Your task to perform on an android device: Show the shopping cart on amazon.com. Search for "macbook" on amazon.com, select the first entry, add it to the cart, then select checkout. Image 0: 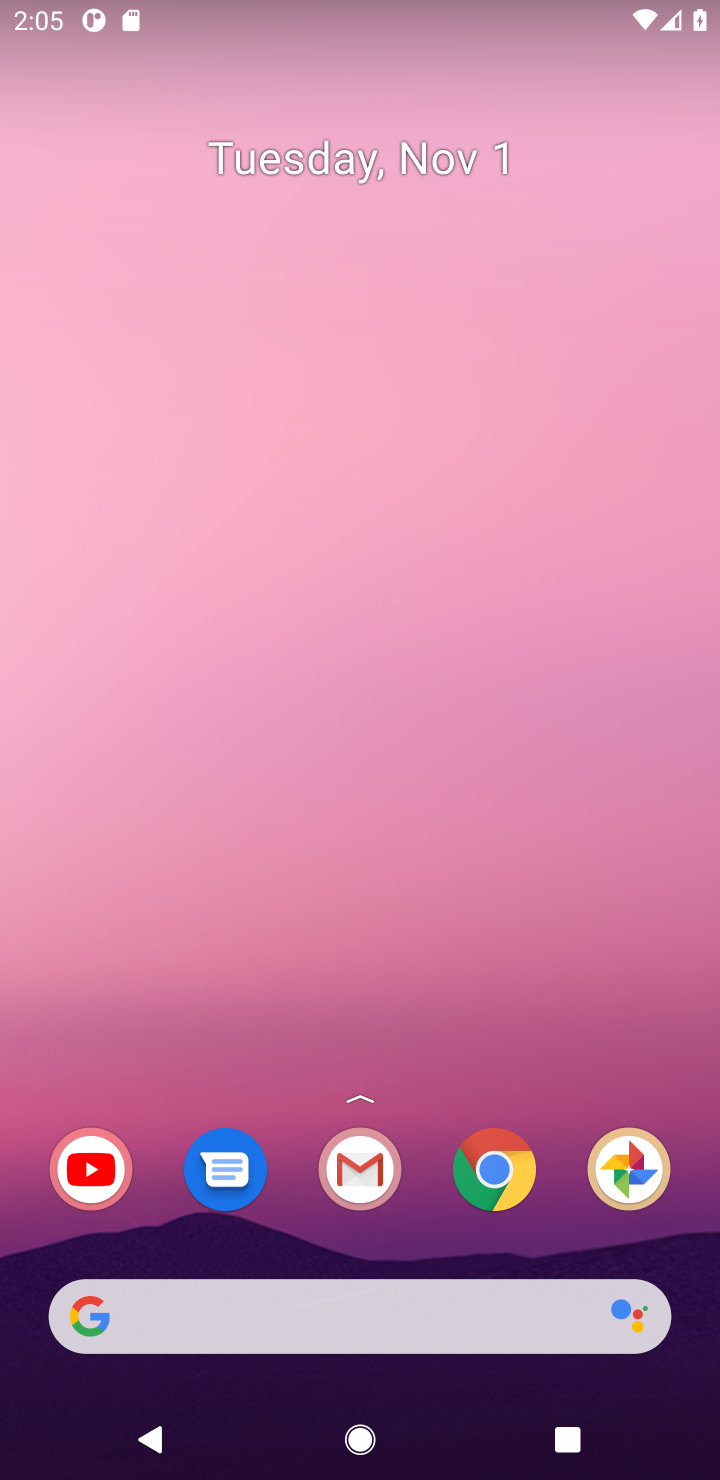
Step 0: drag from (419, 1081) to (337, 87)
Your task to perform on an android device: Show the shopping cart on amazon.com. Search for "macbook" on amazon.com, select the first entry, add it to the cart, then select checkout. Image 1: 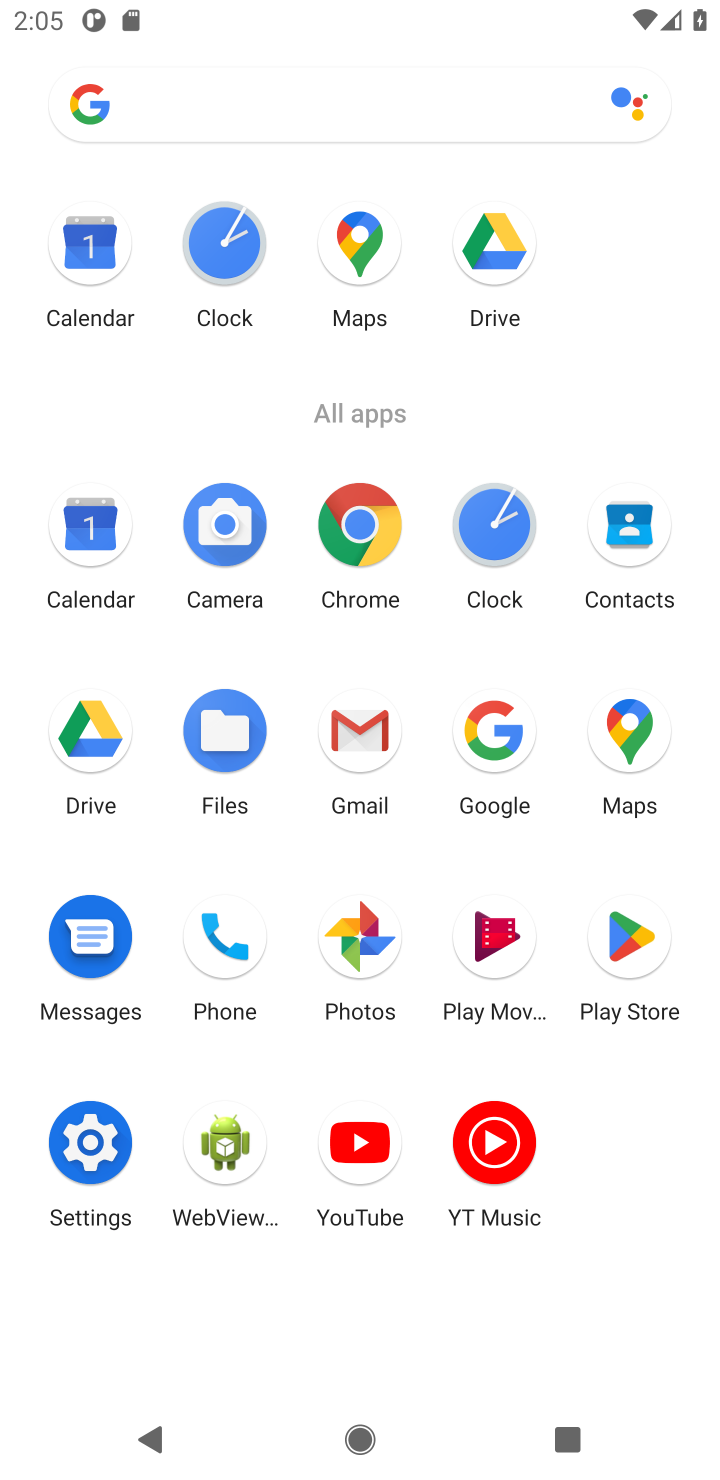
Step 1: click (353, 514)
Your task to perform on an android device: Show the shopping cart on amazon.com. Search for "macbook" on amazon.com, select the first entry, add it to the cart, then select checkout. Image 2: 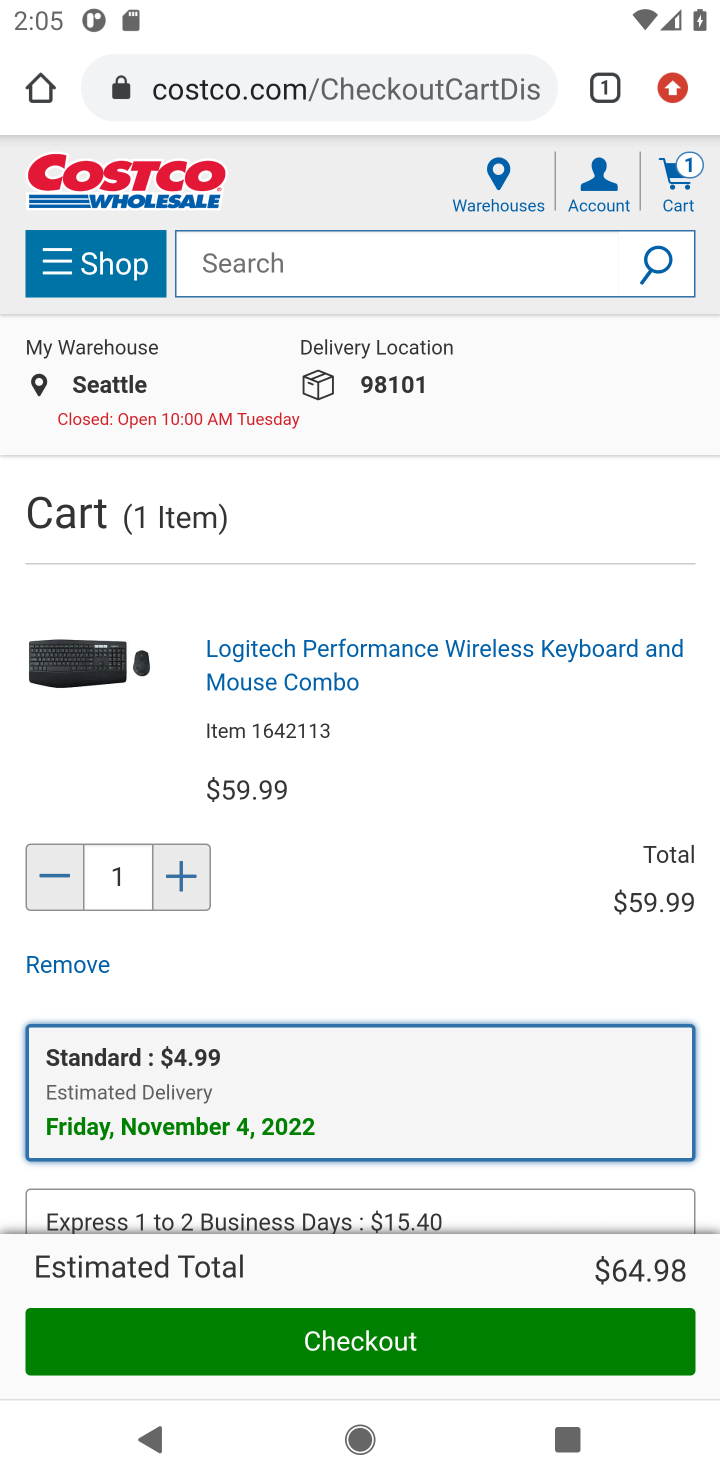
Step 2: click (211, 90)
Your task to perform on an android device: Show the shopping cart on amazon.com. Search for "macbook" on amazon.com, select the first entry, add it to the cart, then select checkout. Image 3: 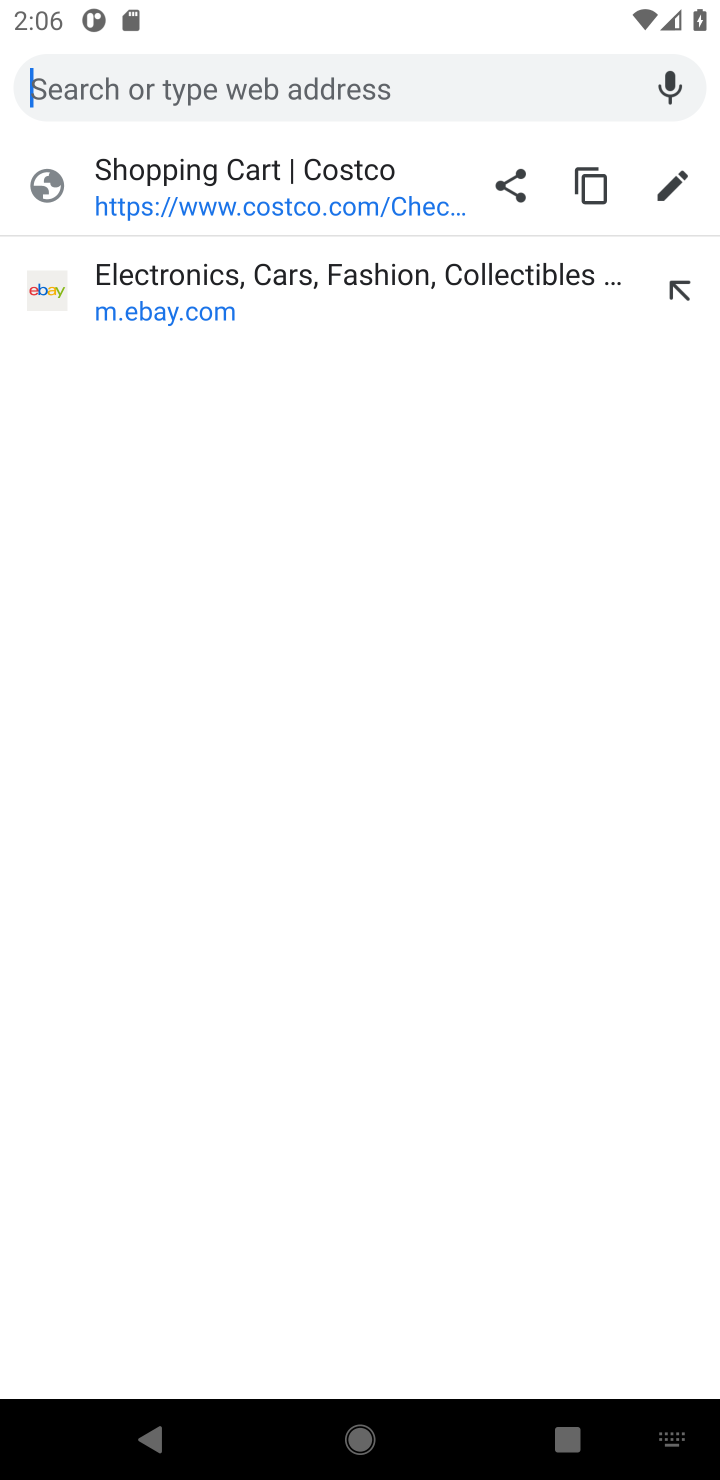
Step 3: type "amazon"
Your task to perform on an android device: Show the shopping cart on amazon.com. Search for "macbook" on amazon.com, select the first entry, add it to the cart, then select checkout. Image 4: 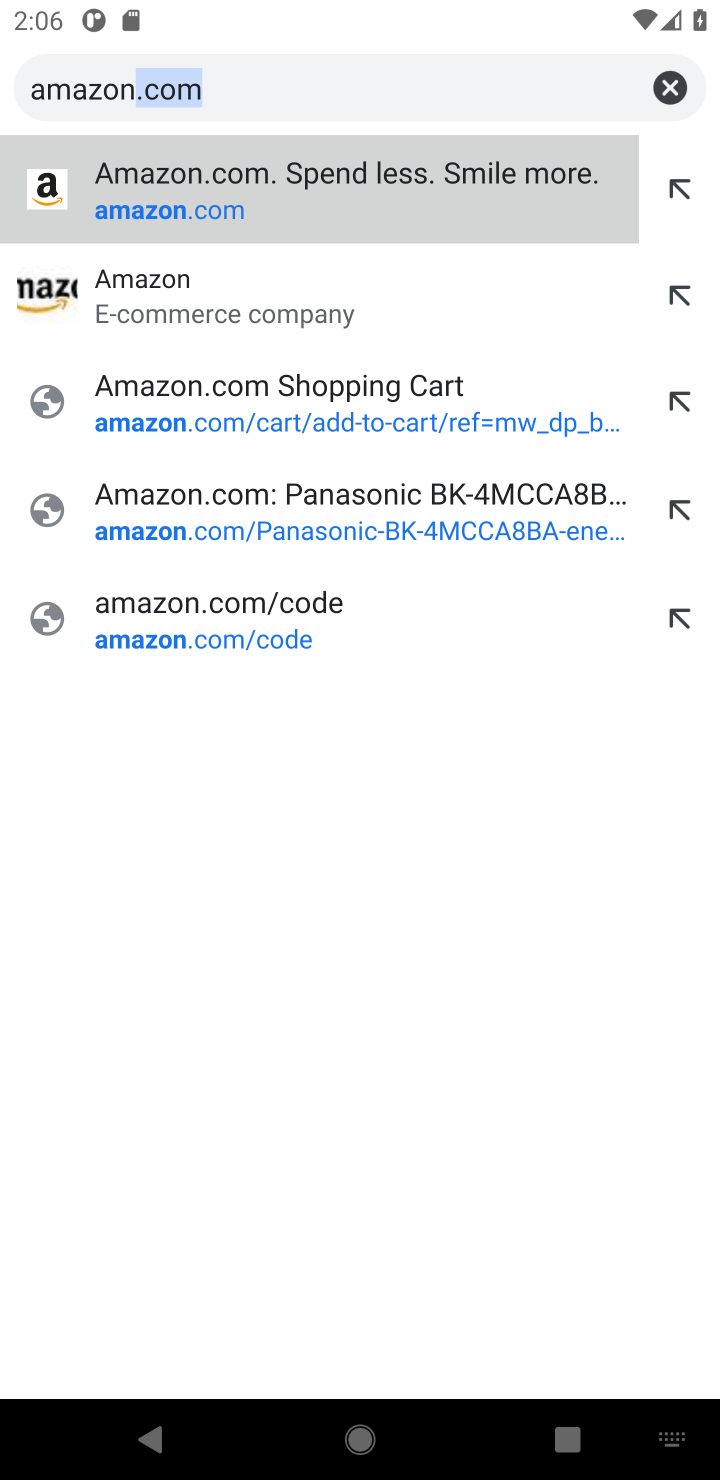
Step 4: click (116, 195)
Your task to perform on an android device: Show the shopping cart on amazon.com. Search for "macbook" on amazon.com, select the first entry, add it to the cart, then select checkout. Image 5: 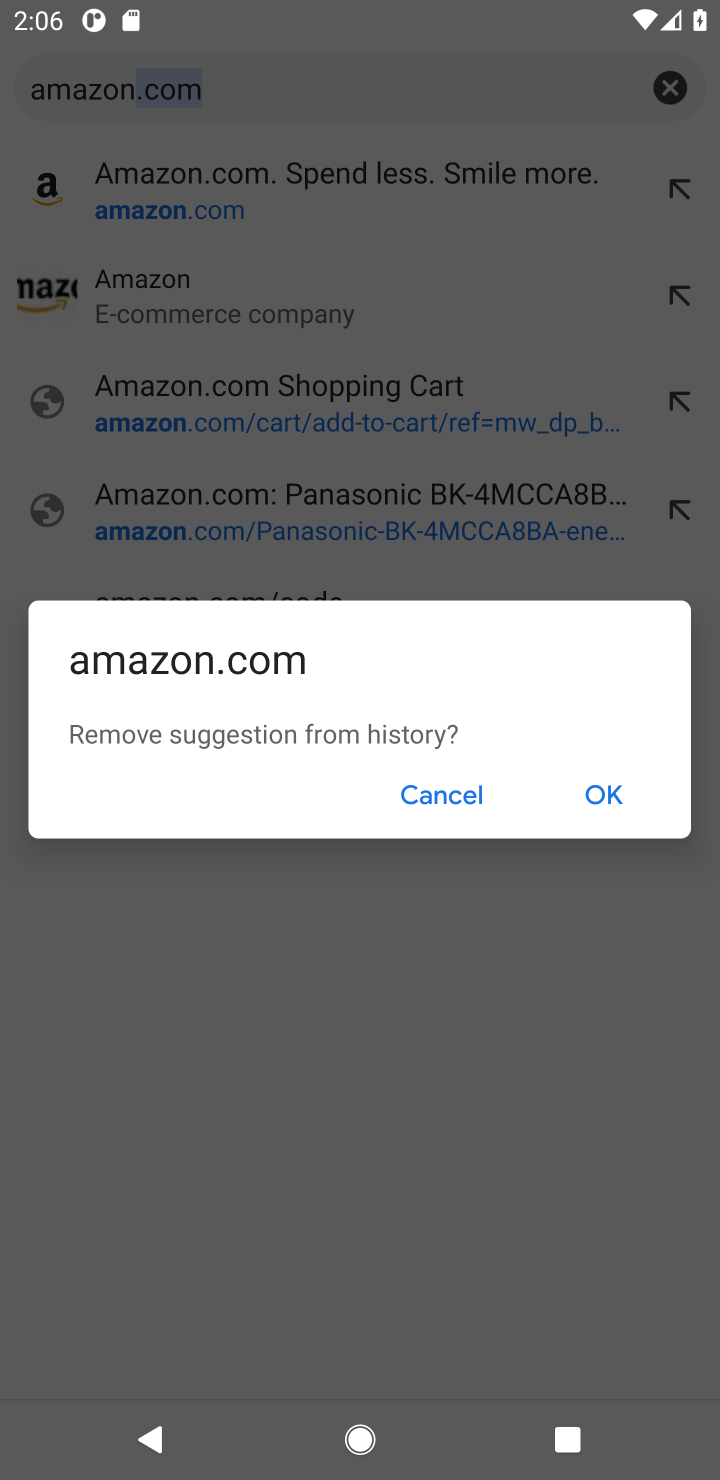
Step 5: click (448, 794)
Your task to perform on an android device: Show the shopping cart on amazon.com. Search for "macbook" on amazon.com, select the first entry, add it to the cart, then select checkout. Image 6: 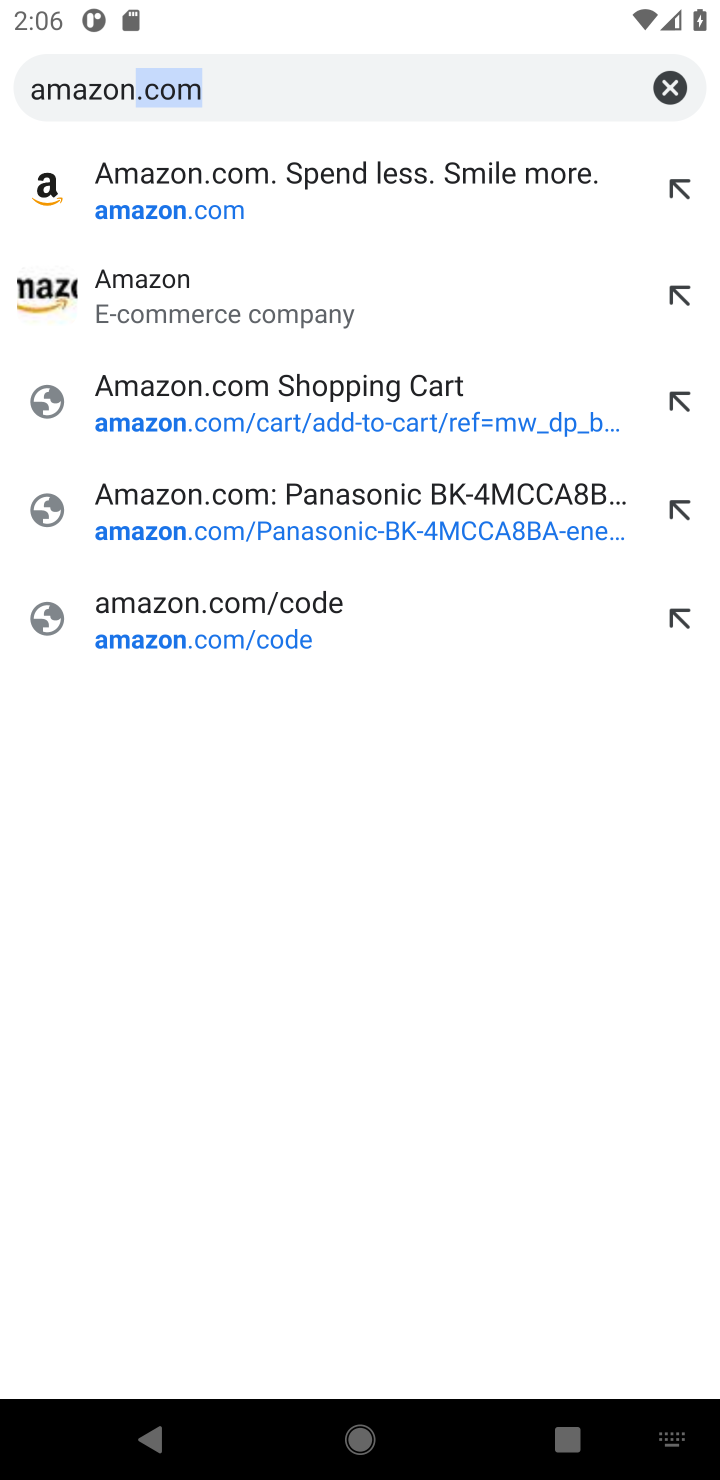
Step 6: click (181, 179)
Your task to perform on an android device: Show the shopping cart on amazon.com. Search for "macbook" on amazon.com, select the first entry, add it to the cart, then select checkout. Image 7: 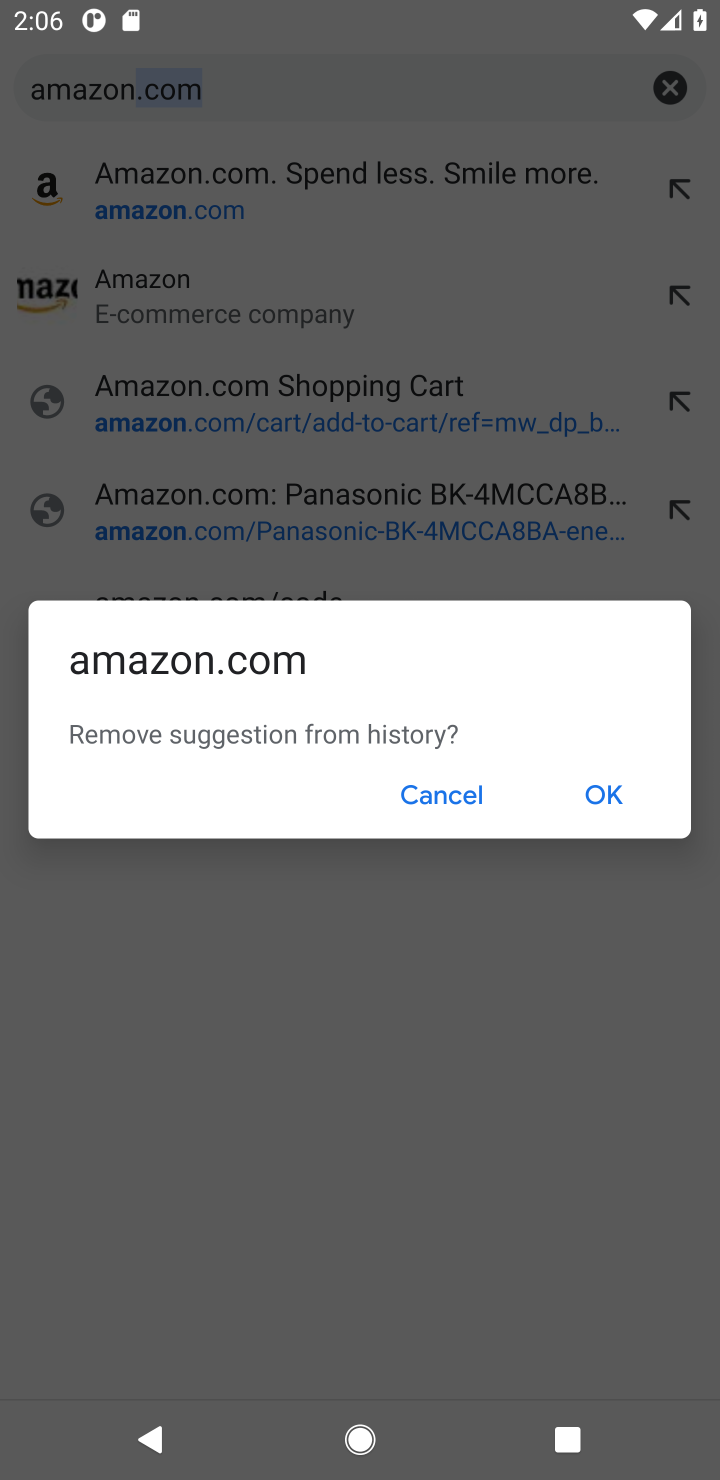
Step 7: click (430, 798)
Your task to perform on an android device: Show the shopping cart on amazon.com. Search for "macbook" on amazon.com, select the first entry, add it to the cart, then select checkout. Image 8: 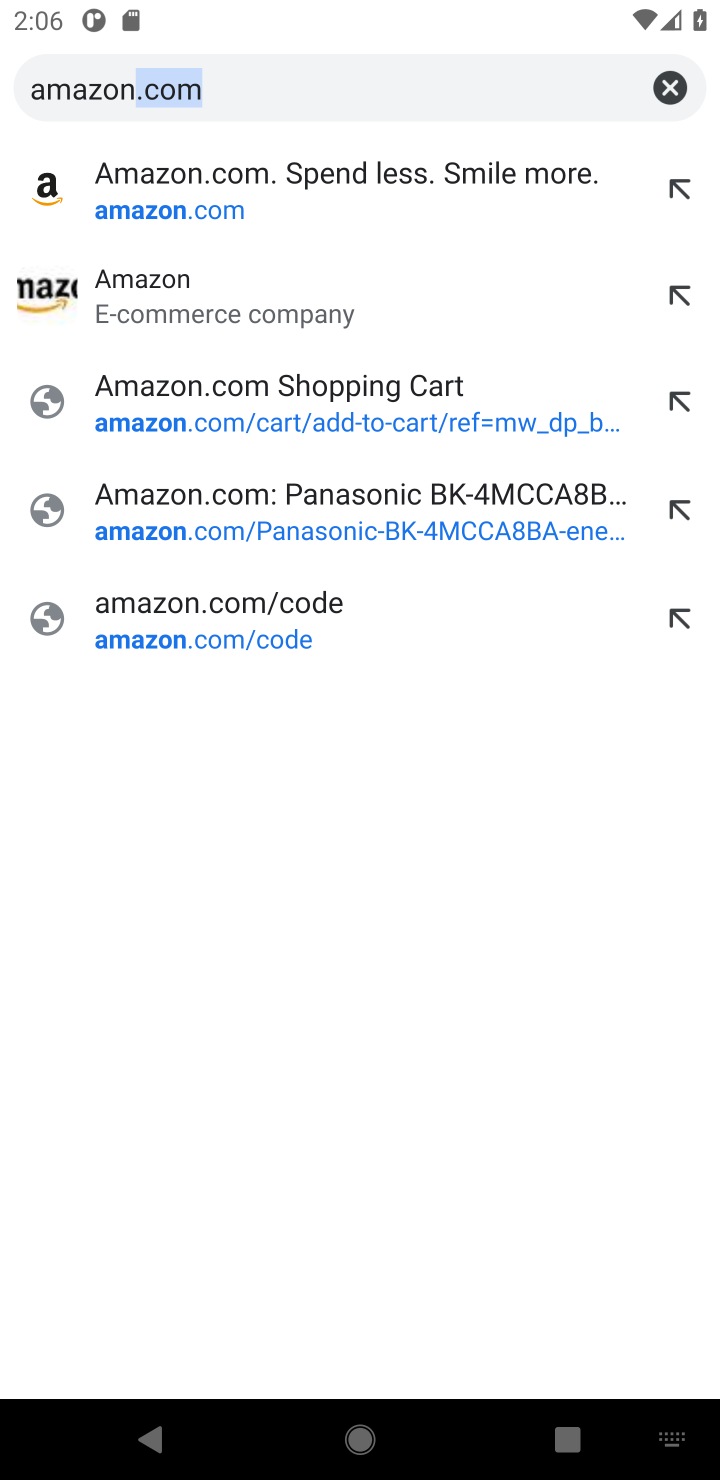
Step 8: click (133, 275)
Your task to perform on an android device: Show the shopping cart on amazon.com. Search for "macbook" on amazon.com, select the first entry, add it to the cart, then select checkout. Image 9: 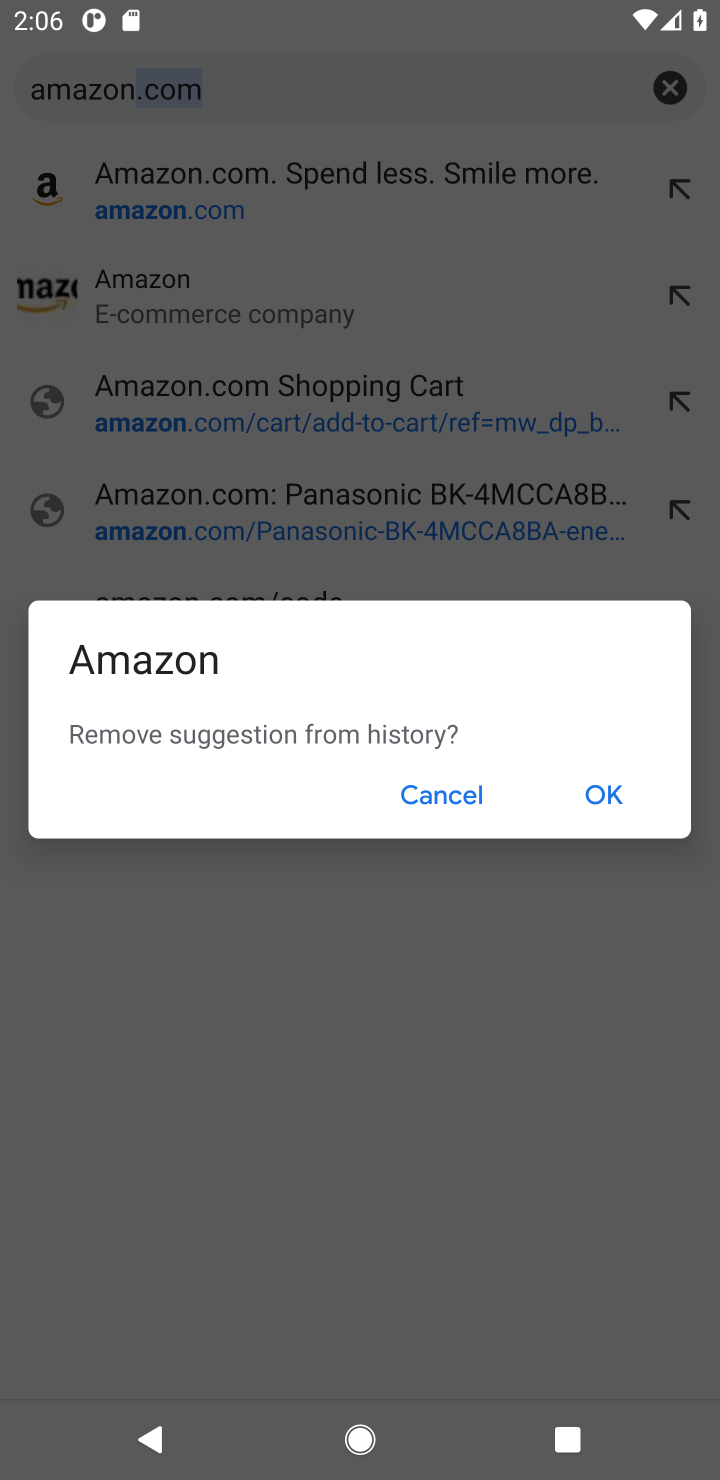
Step 9: click (408, 785)
Your task to perform on an android device: Show the shopping cart on amazon.com. Search for "macbook" on amazon.com, select the first entry, add it to the cart, then select checkout. Image 10: 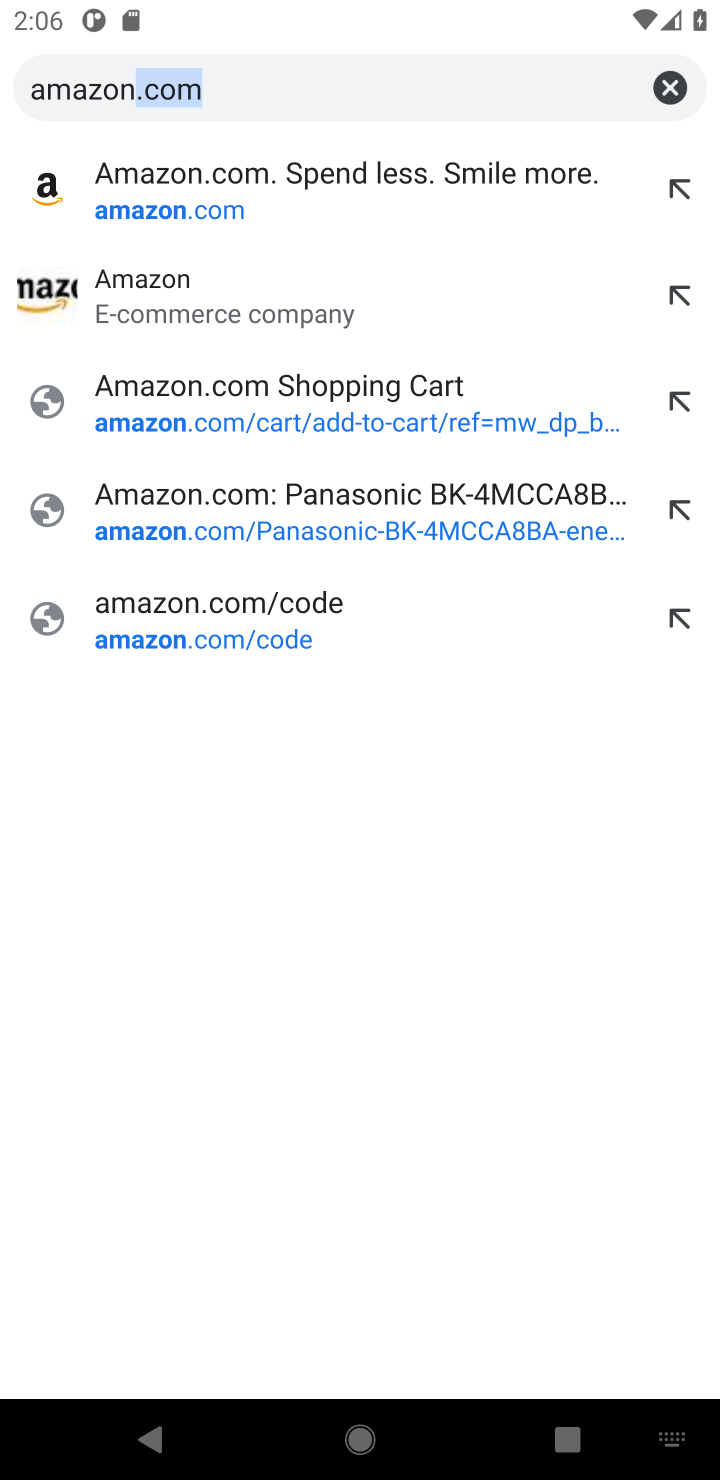
Step 10: click (100, 207)
Your task to perform on an android device: Show the shopping cart on amazon.com. Search for "macbook" on amazon.com, select the first entry, add it to the cart, then select checkout. Image 11: 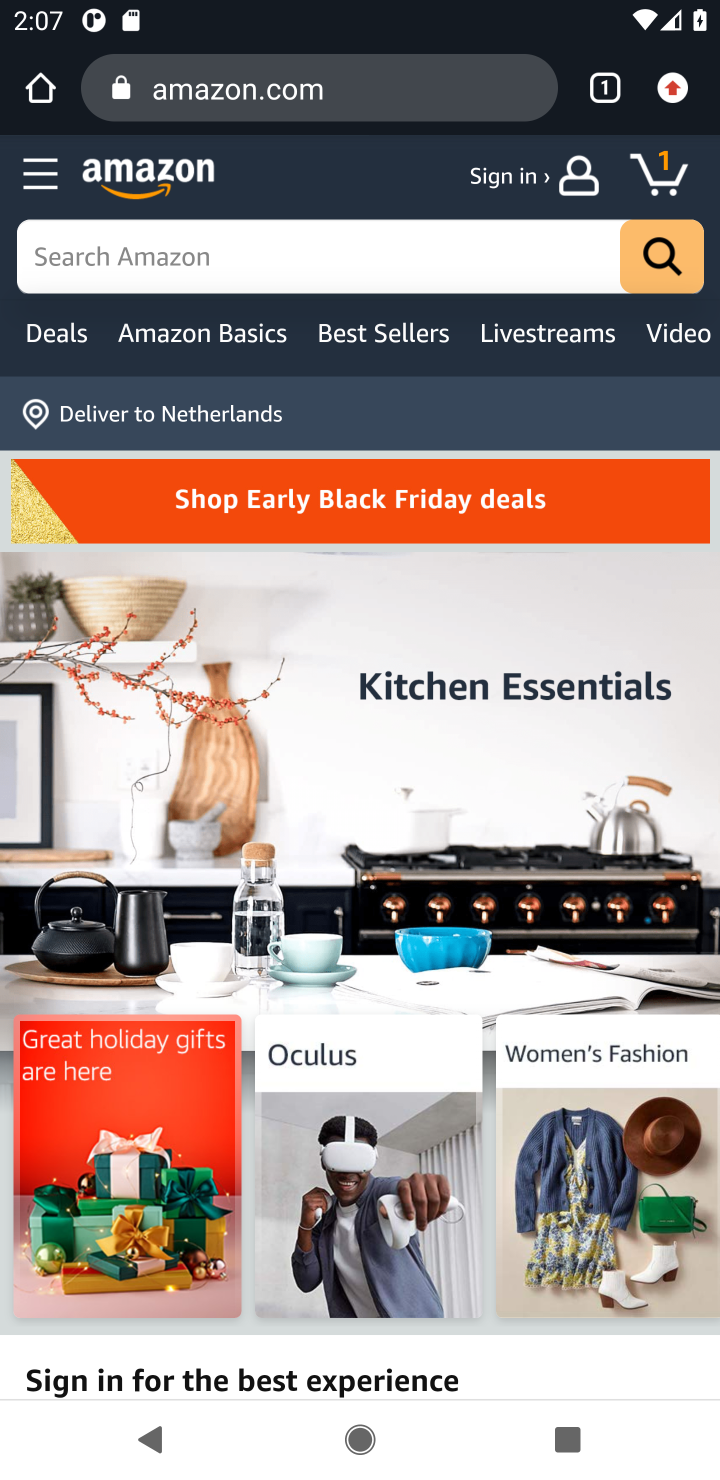
Step 11: click (102, 250)
Your task to perform on an android device: Show the shopping cart on amazon.com. Search for "macbook" on amazon.com, select the first entry, add it to the cart, then select checkout. Image 12: 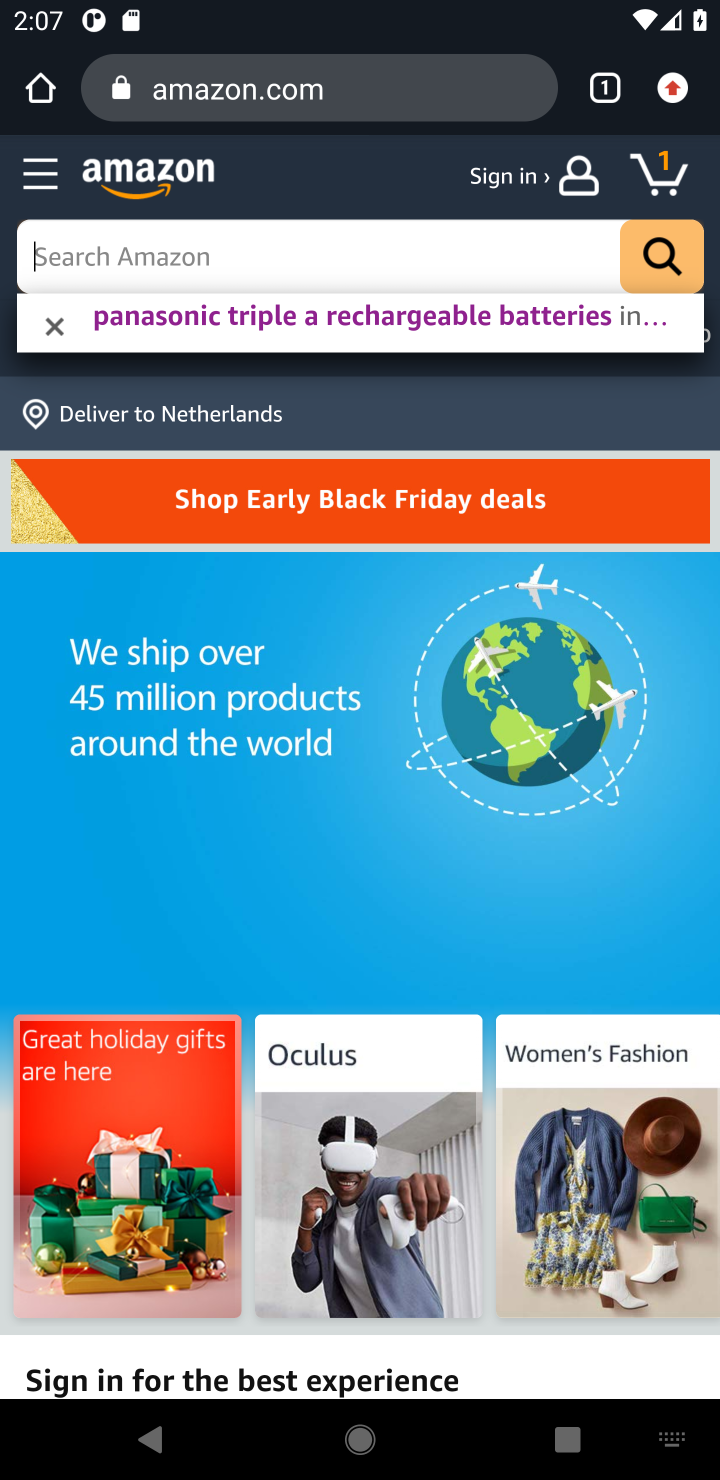
Step 12: type "macbook"
Your task to perform on an android device: Show the shopping cart on amazon.com. Search for "macbook" on amazon.com, select the first entry, add it to the cart, then select checkout. Image 13: 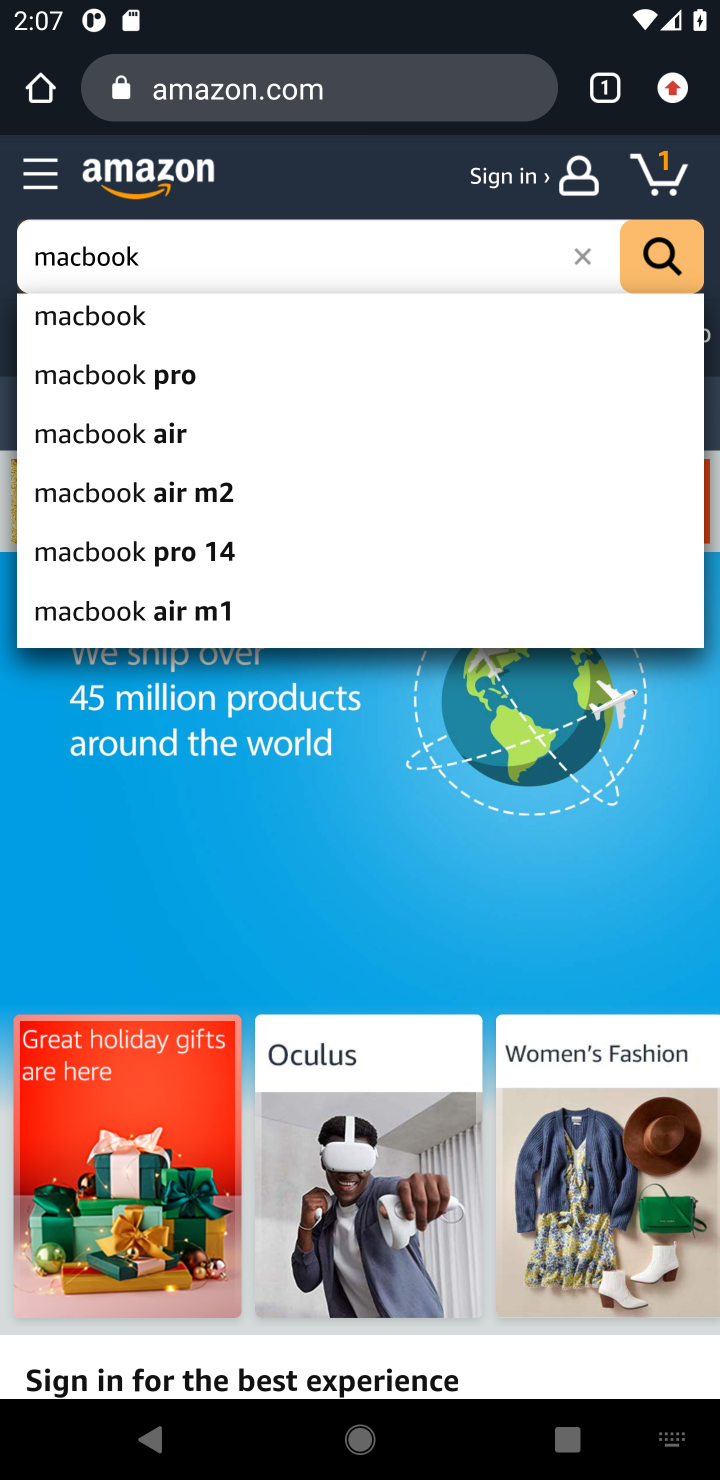
Step 13: click (129, 312)
Your task to perform on an android device: Show the shopping cart on amazon.com. Search for "macbook" on amazon.com, select the first entry, add it to the cart, then select checkout. Image 14: 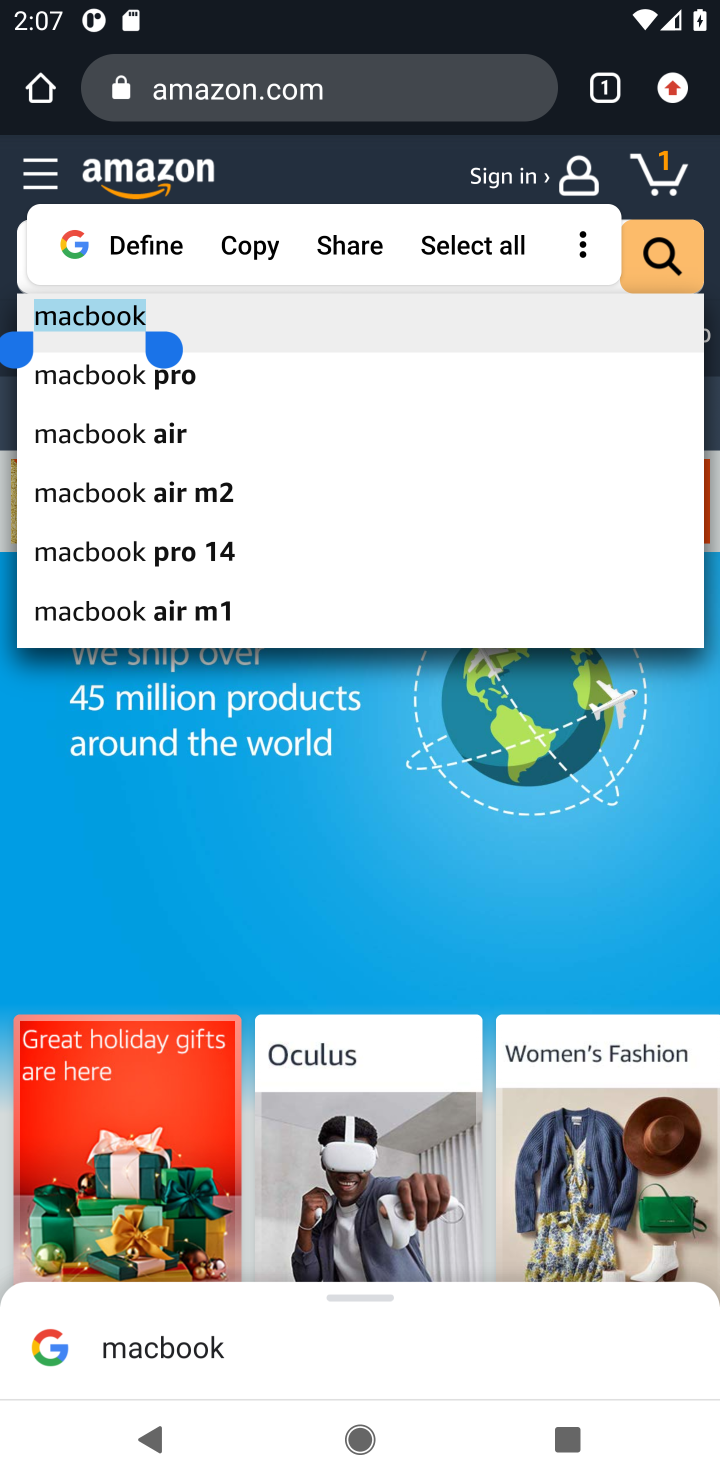
Step 14: click (210, 316)
Your task to perform on an android device: Show the shopping cart on amazon.com. Search for "macbook" on amazon.com, select the first entry, add it to the cart, then select checkout. Image 15: 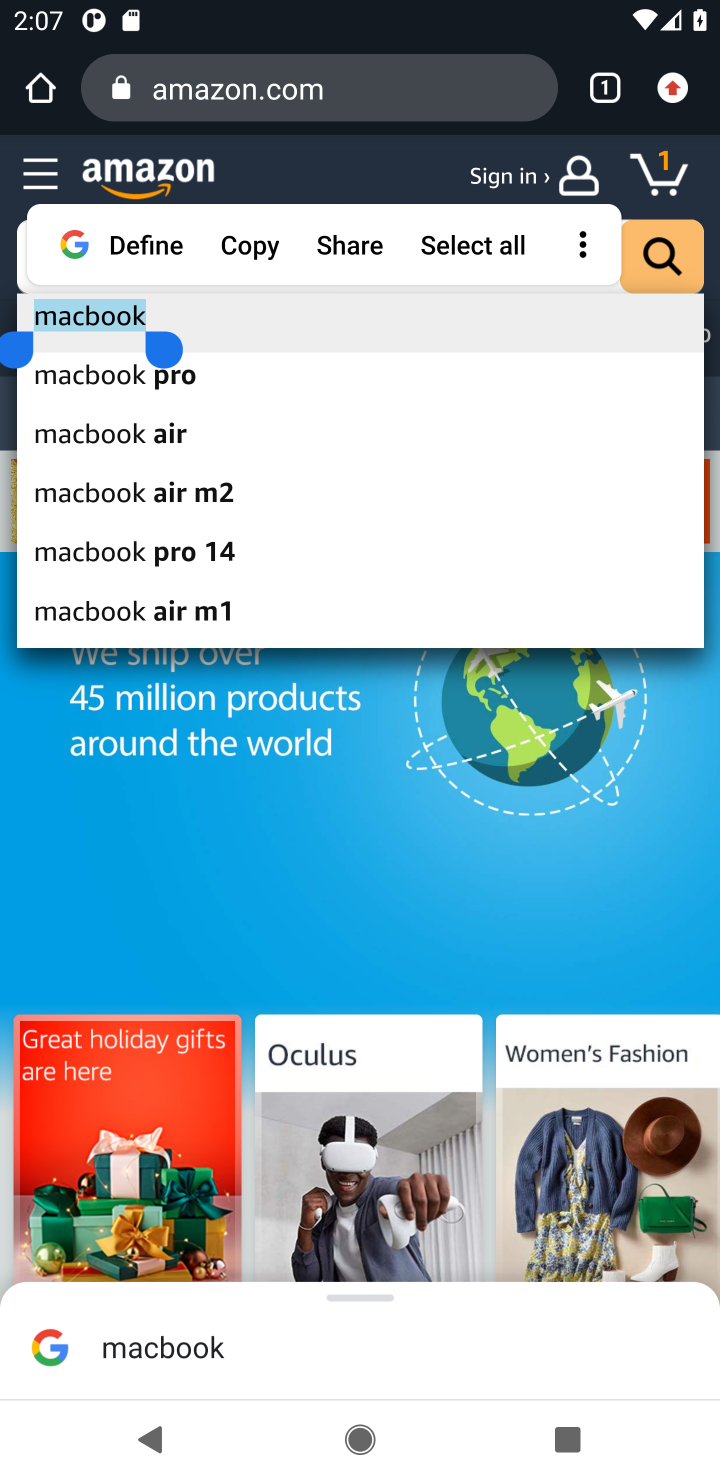
Step 15: click (99, 366)
Your task to perform on an android device: Show the shopping cart on amazon.com. Search for "macbook" on amazon.com, select the first entry, add it to the cart, then select checkout. Image 16: 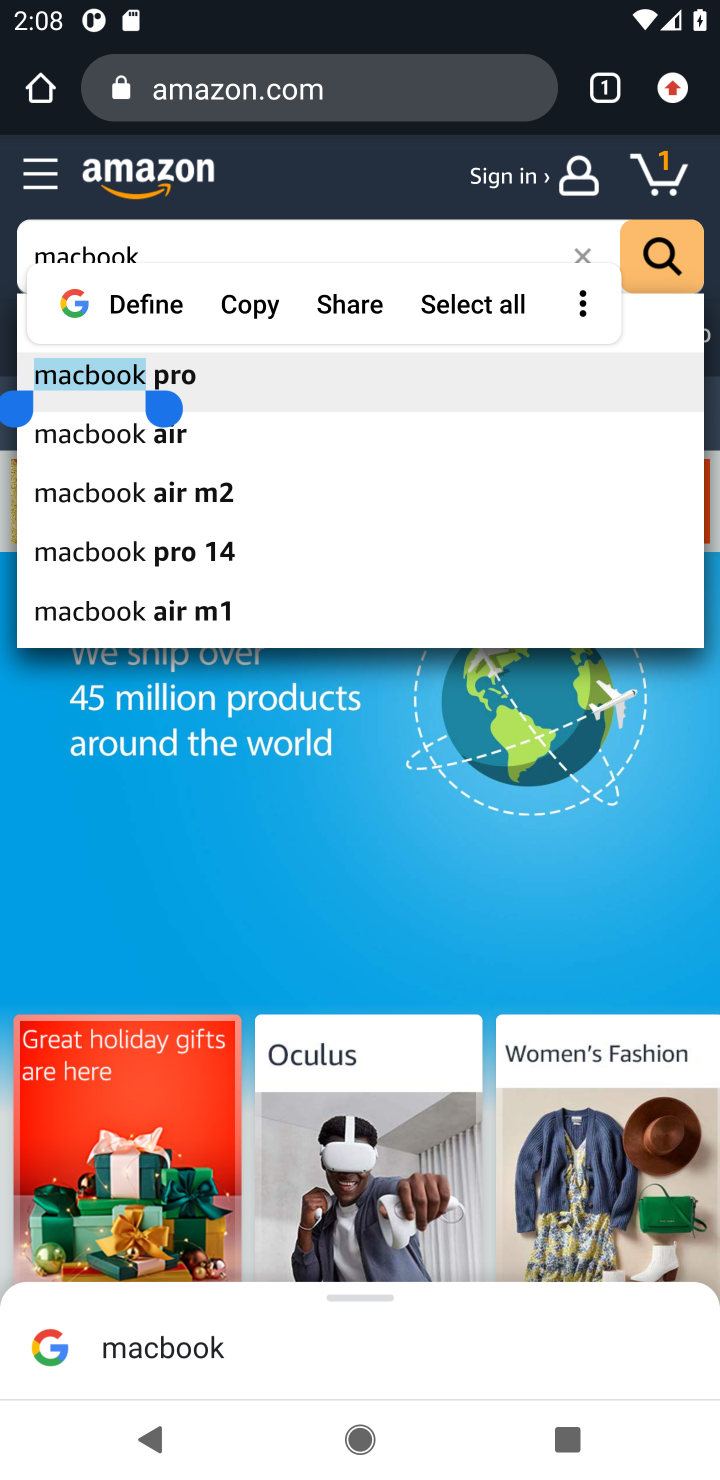
Step 16: click (226, 367)
Your task to perform on an android device: Show the shopping cart on amazon.com. Search for "macbook" on amazon.com, select the first entry, add it to the cart, then select checkout. Image 17: 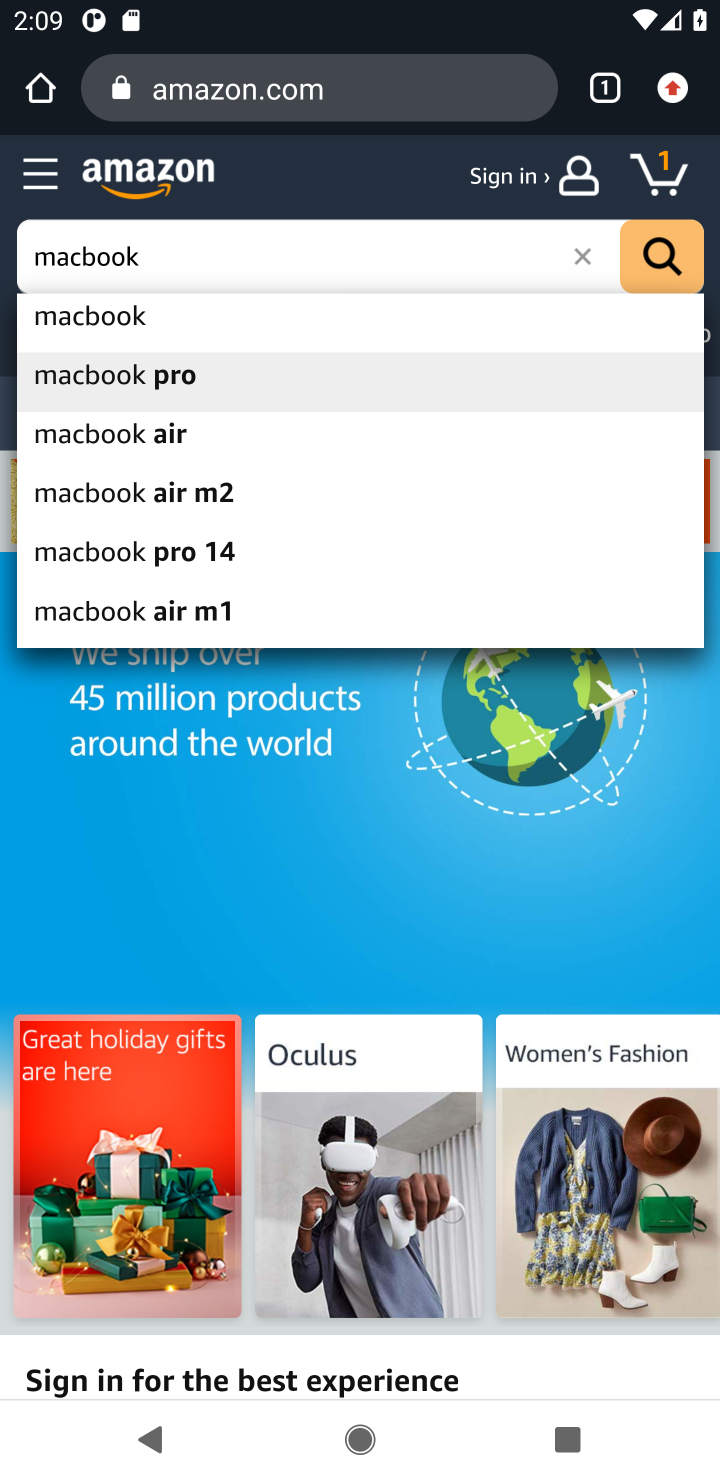
Step 17: click (105, 313)
Your task to perform on an android device: Show the shopping cart on amazon.com. Search for "macbook" on amazon.com, select the first entry, add it to the cart, then select checkout. Image 18: 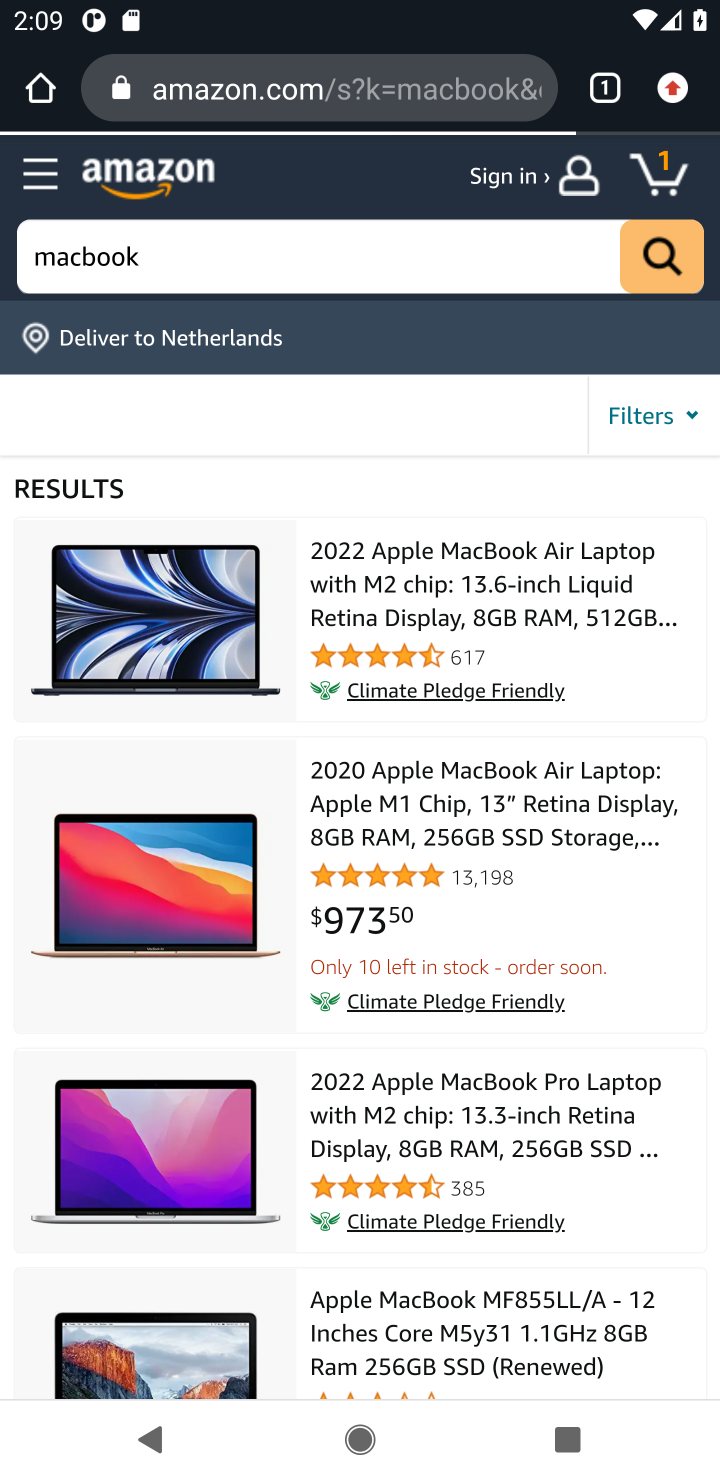
Step 18: click (380, 601)
Your task to perform on an android device: Show the shopping cart on amazon.com. Search for "macbook" on amazon.com, select the first entry, add it to the cart, then select checkout. Image 19: 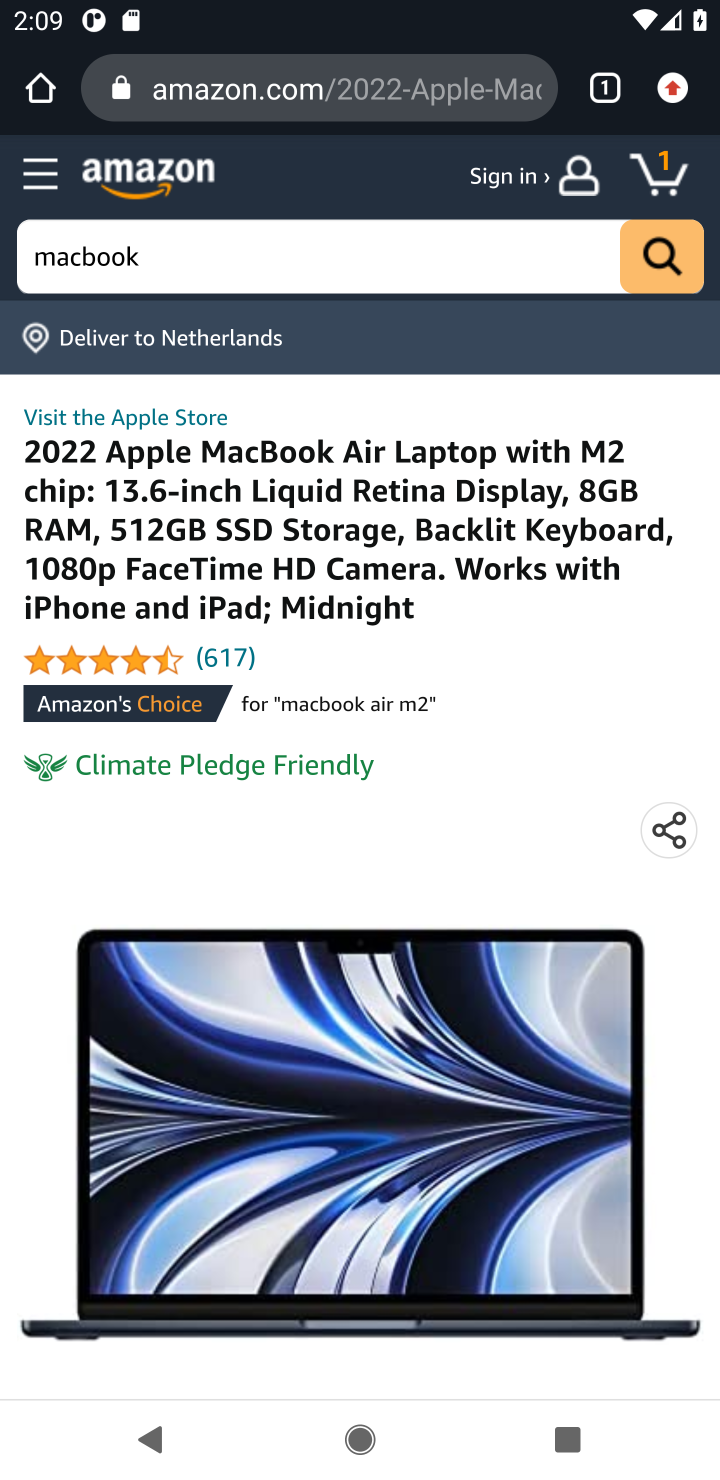
Step 19: drag from (55, 1256) to (171, 393)
Your task to perform on an android device: Show the shopping cart on amazon.com. Search for "macbook" on amazon.com, select the first entry, add it to the cart, then select checkout. Image 20: 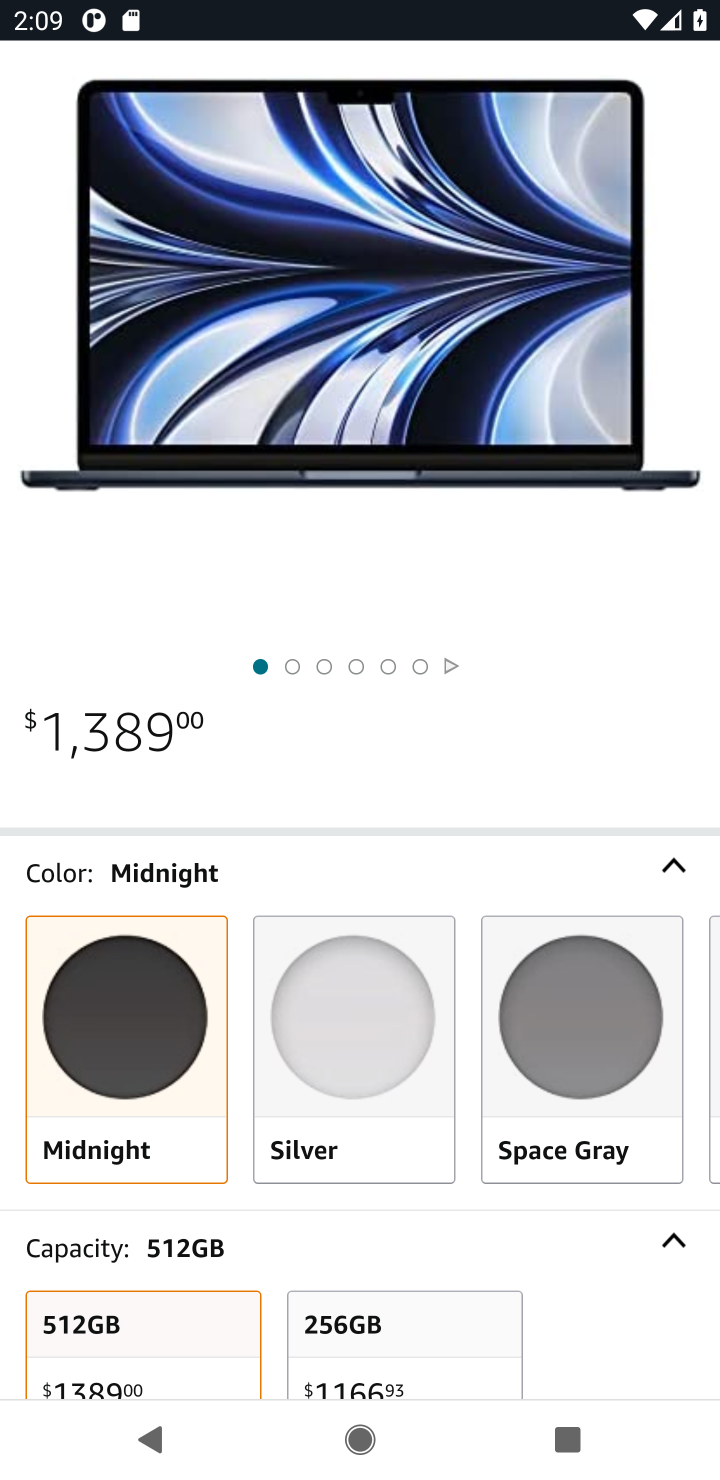
Step 20: drag from (334, 1234) to (443, 639)
Your task to perform on an android device: Show the shopping cart on amazon.com. Search for "macbook" on amazon.com, select the first entry, add it to the cart, then select checkout. Image 21: 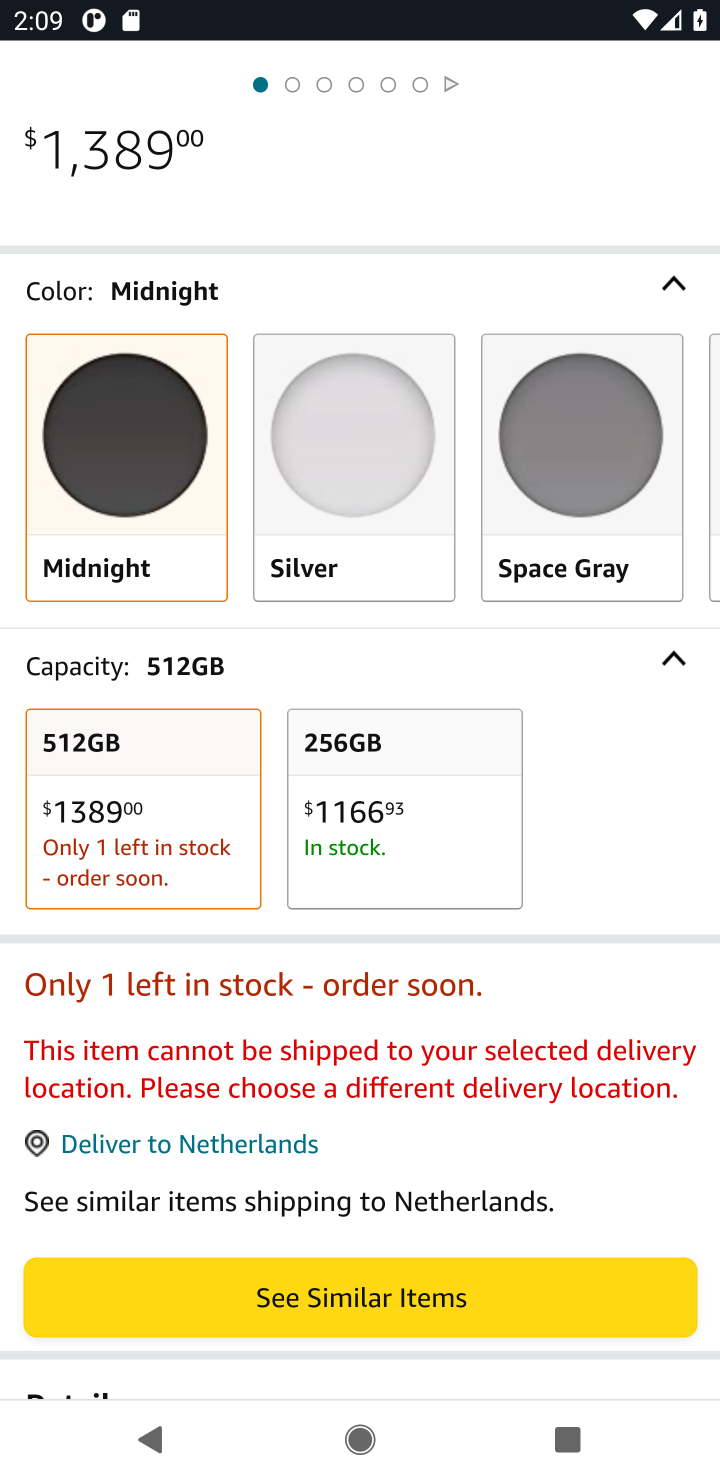
Step 21: drag from (556, 1220) to (597, 539)
Your task to perform on an android device: Show the shopping cart on amazon.com. Search for "macbook" on amazon.com, select the first entry, add it to the cart, then select checkout. Image 22: 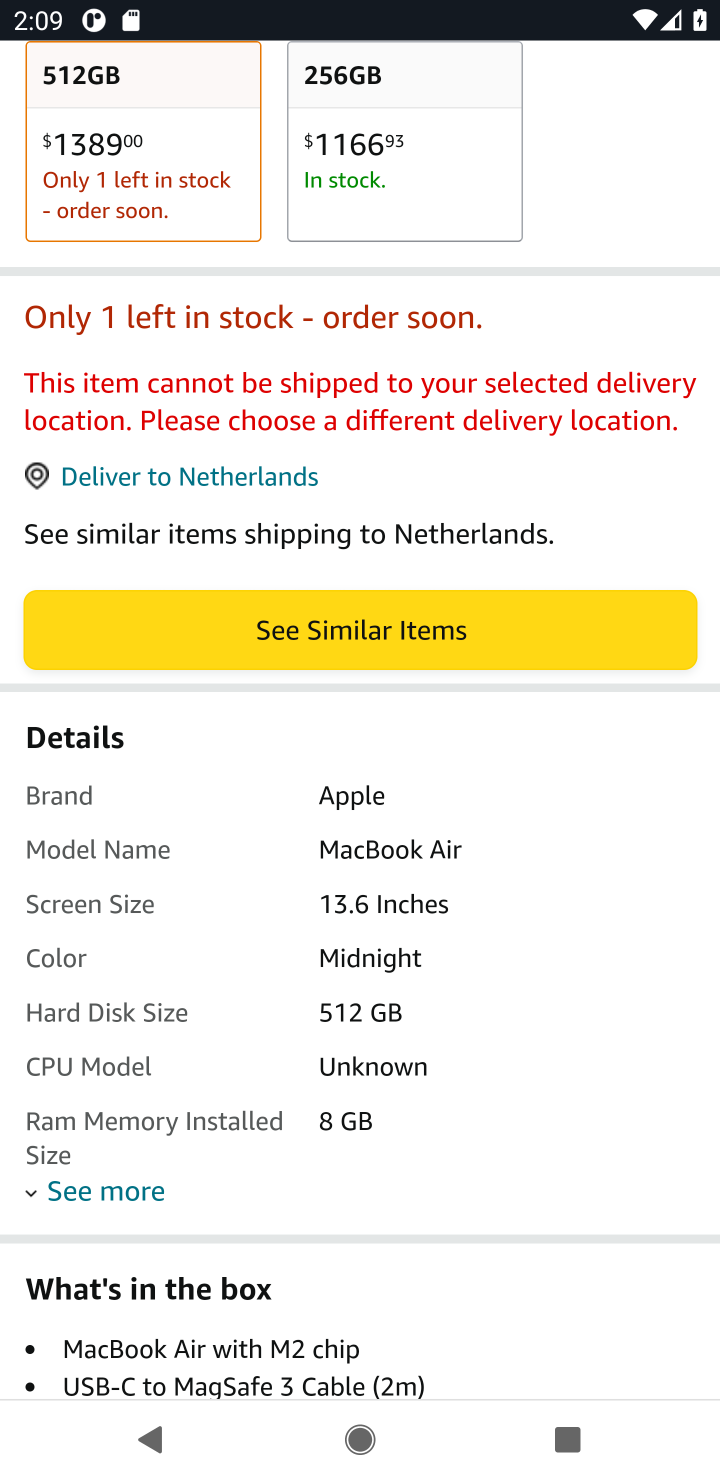
Step 22: click (367, 625)
Your task to perform on an android device: Show the shopping cart on amazon.com. Search for "macbook" on amazon.com, select the first entry, add it to the cart, then select checkout. Image 23: 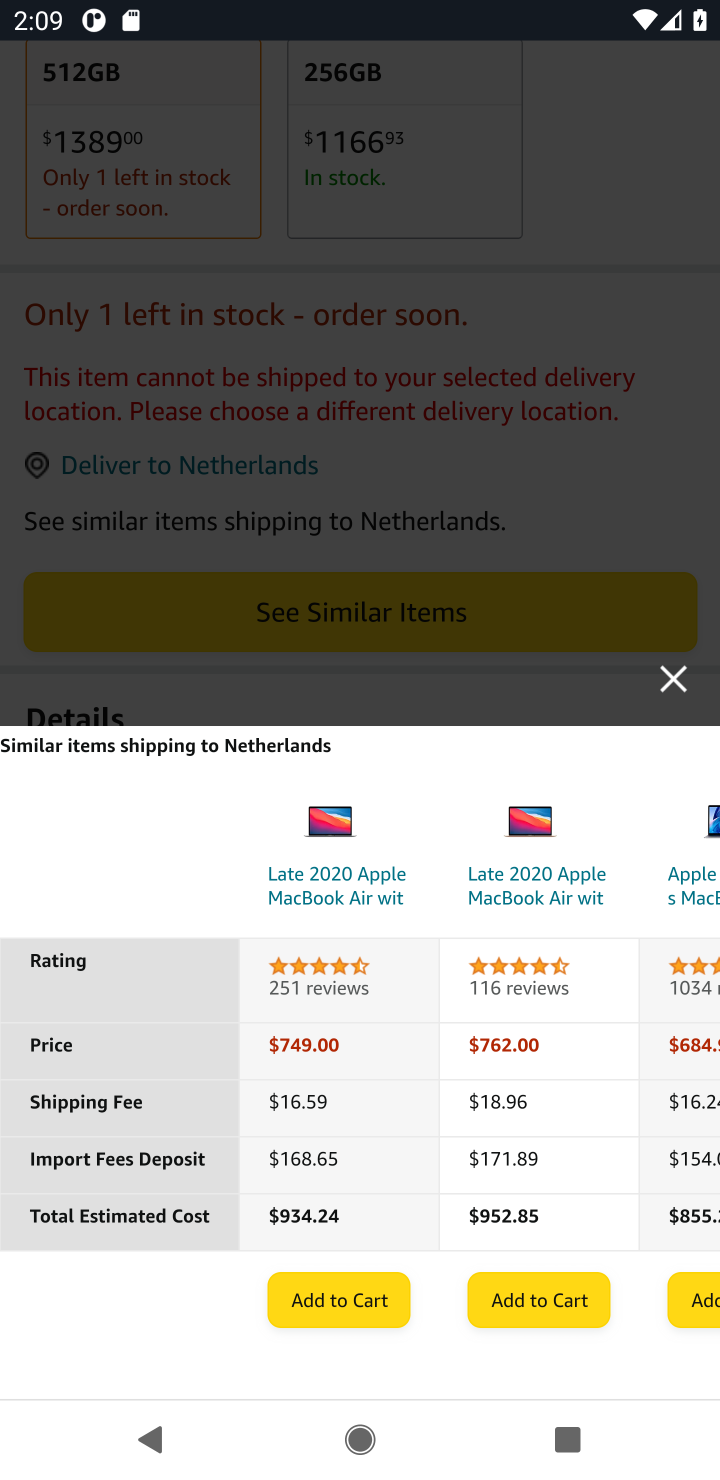
Step 23: click (352, 1301)
Your task to perform on an android device: Show the shopping cart on amazon.com. Search for "macbook" on amazon.com, select the first entry, add it to the cart, then select checkout. Image 24: 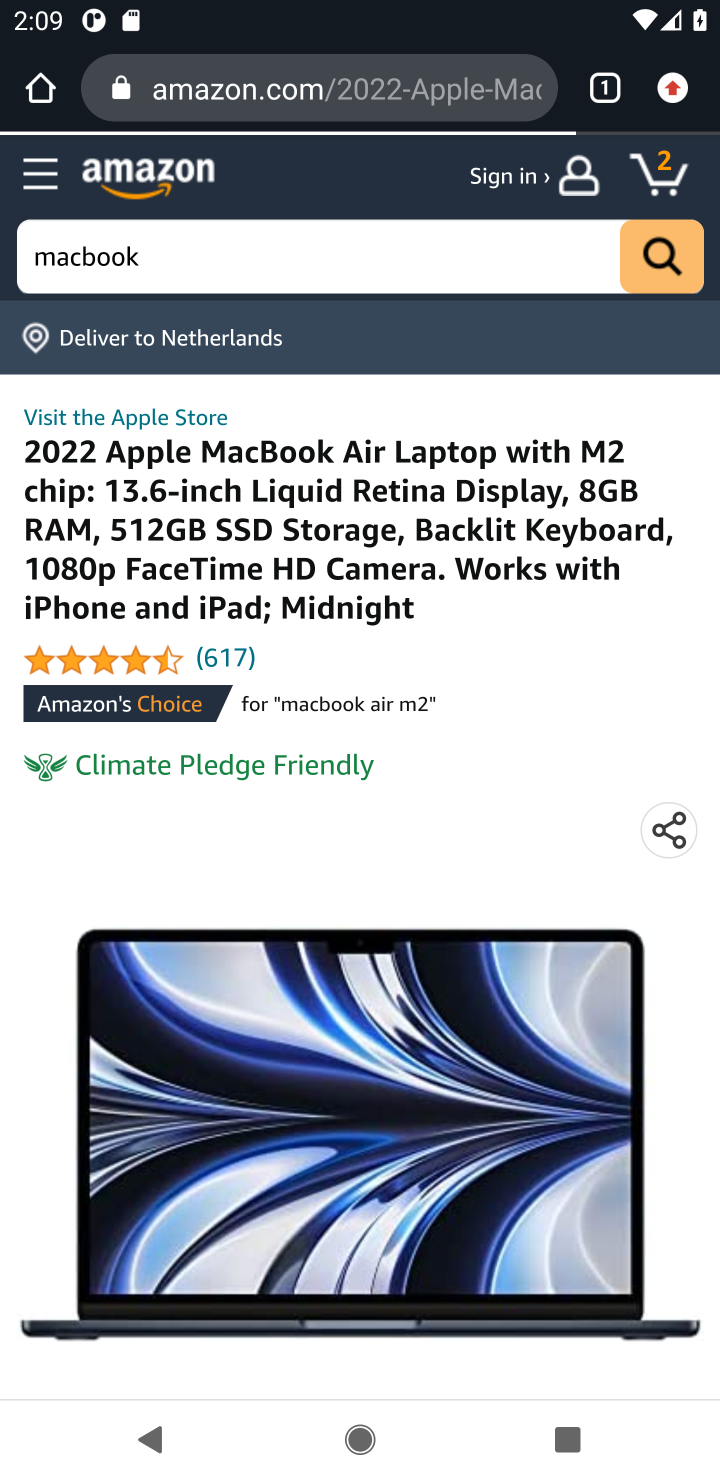
Step 24: click (670, 157)
Your task to perform on an android device: Show the shopping cart on amazon.com. Search for "macbook" on amazon.com, select the first entry, add it to the cart, then select checkout. Image 25: 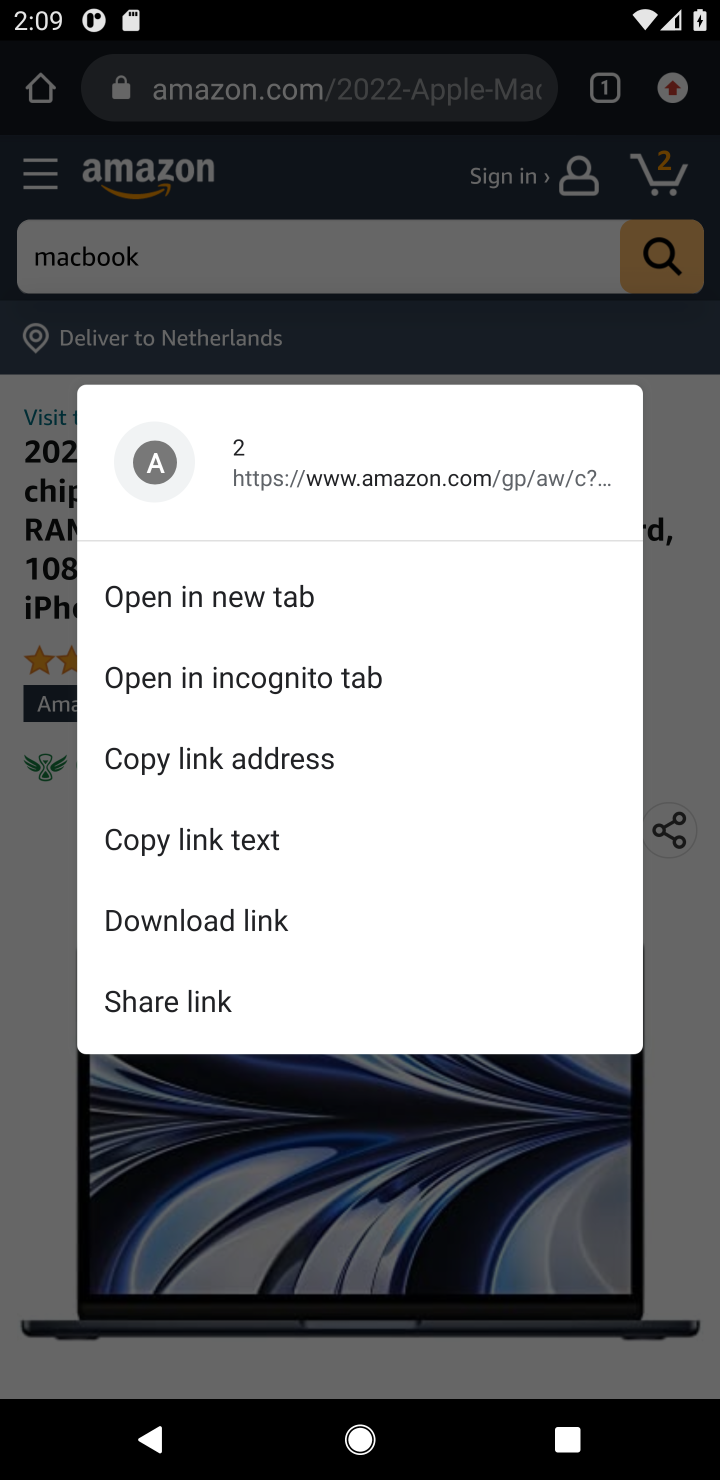
Step 25: click (48, 467)
Your task to perform on an android device: Show the shopping cart on amazon.com. Search for "macbook" on amazon.com, select the first entry, add it to the cart, then select checkout. Image 26: 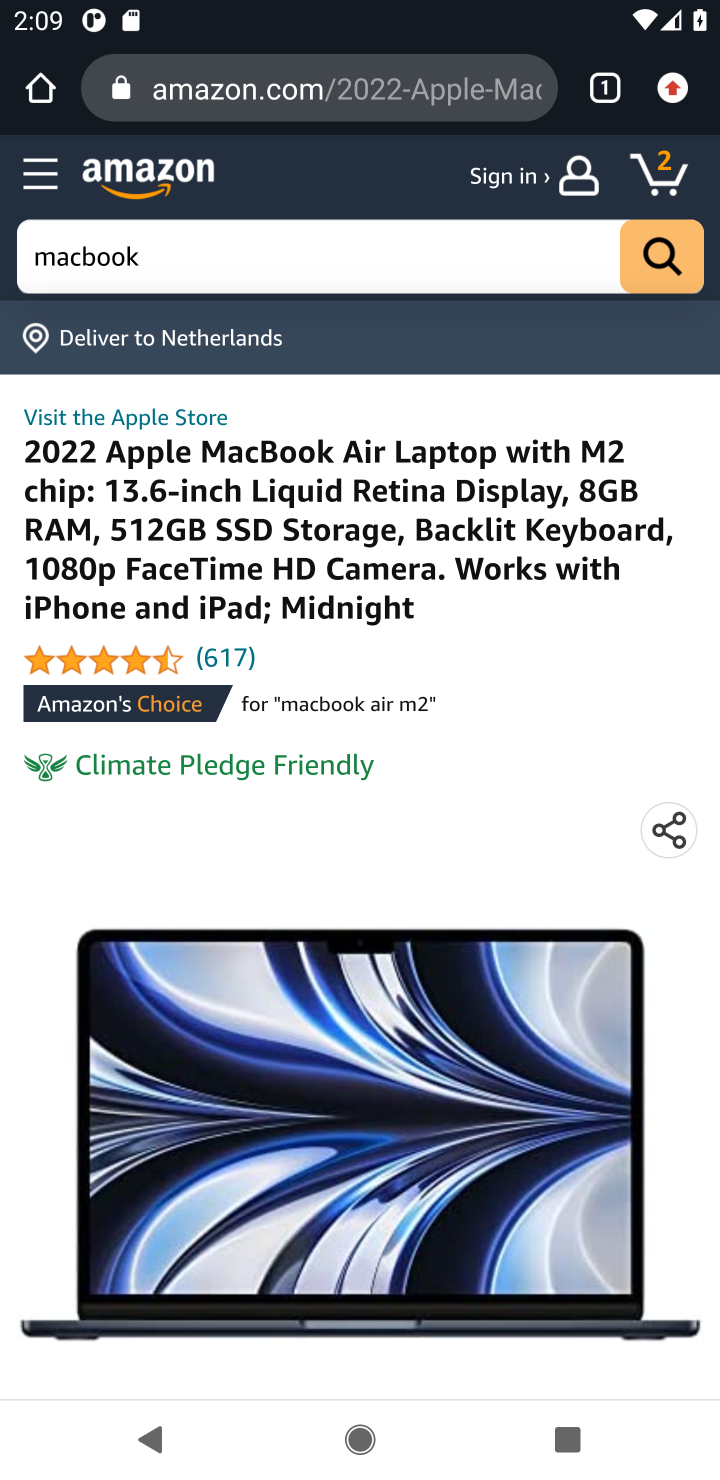
Step 26: click (678, 166)
Your task to perform on an android device: Show the shopping cart on amazon.com. Search for "macbook" on amazon.com, select the first entry, add it to the cart, then select checkout. Image 27: 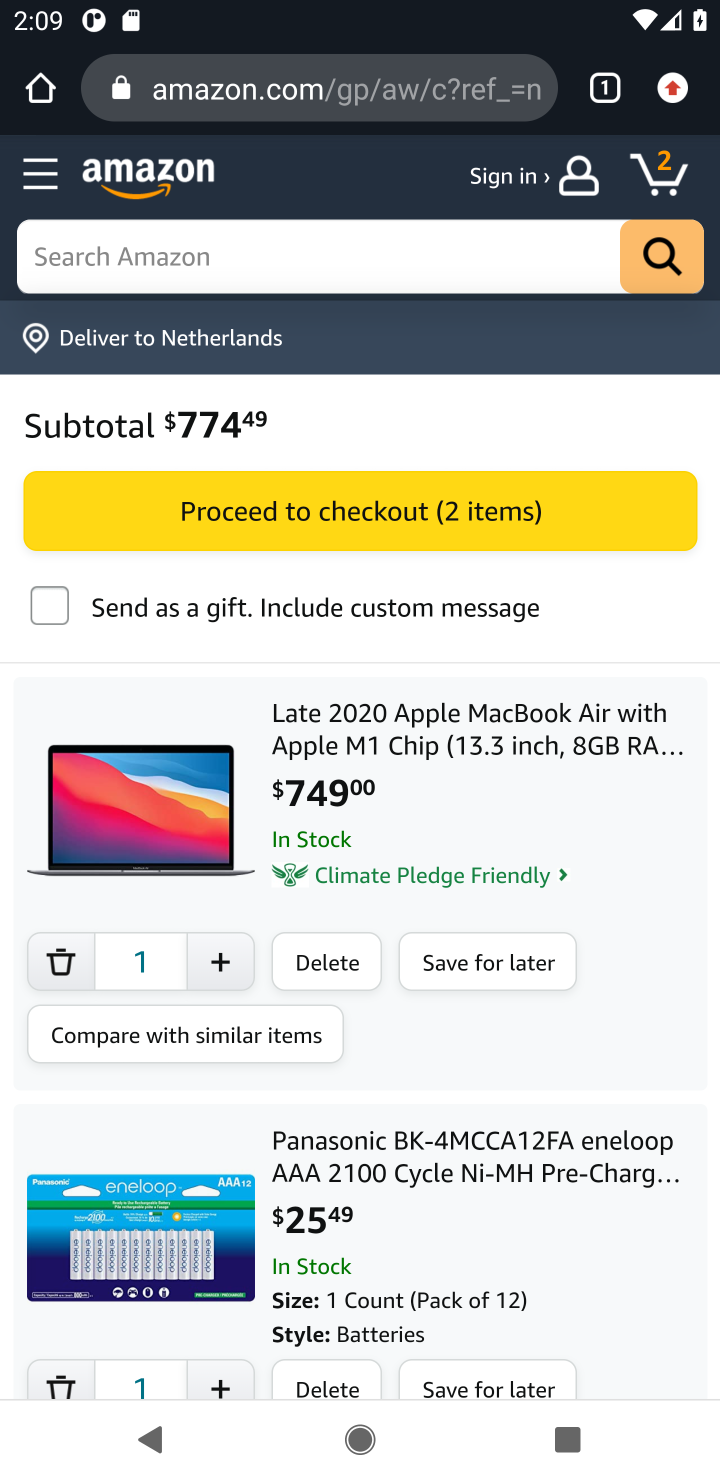
Step 27: click (649, 159)
Your task to perform on an android device: Show the shopping cart on amazon.com. Search for "macbook" on amazon.com, select the first entry, add it to the cart, then select checkout. Image 28: 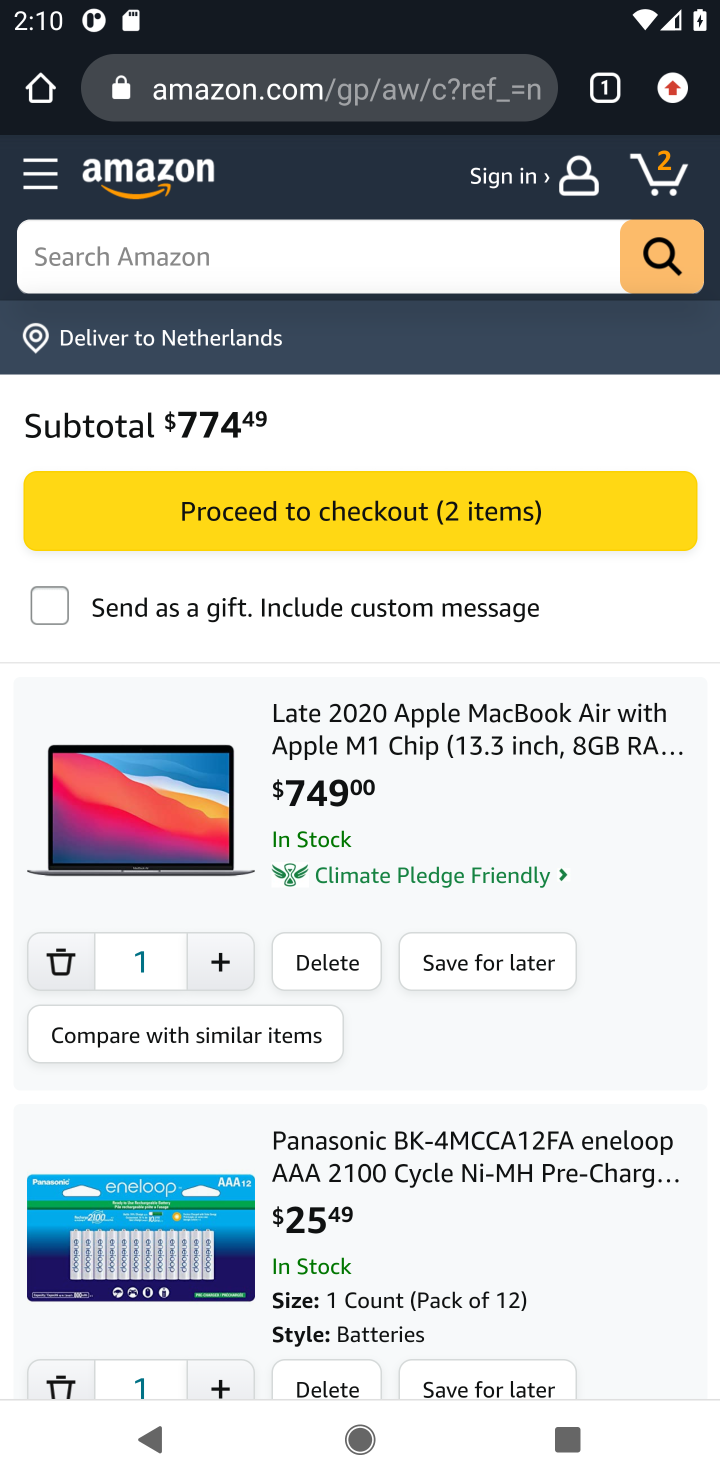
Step 28: click (407, 505)
Your task to perform on an android device: Show the shopping cart on amazon.com. Search for "macbook" on amazon.com, select the first entry, add it to the cart, then select checkout. Image 29: 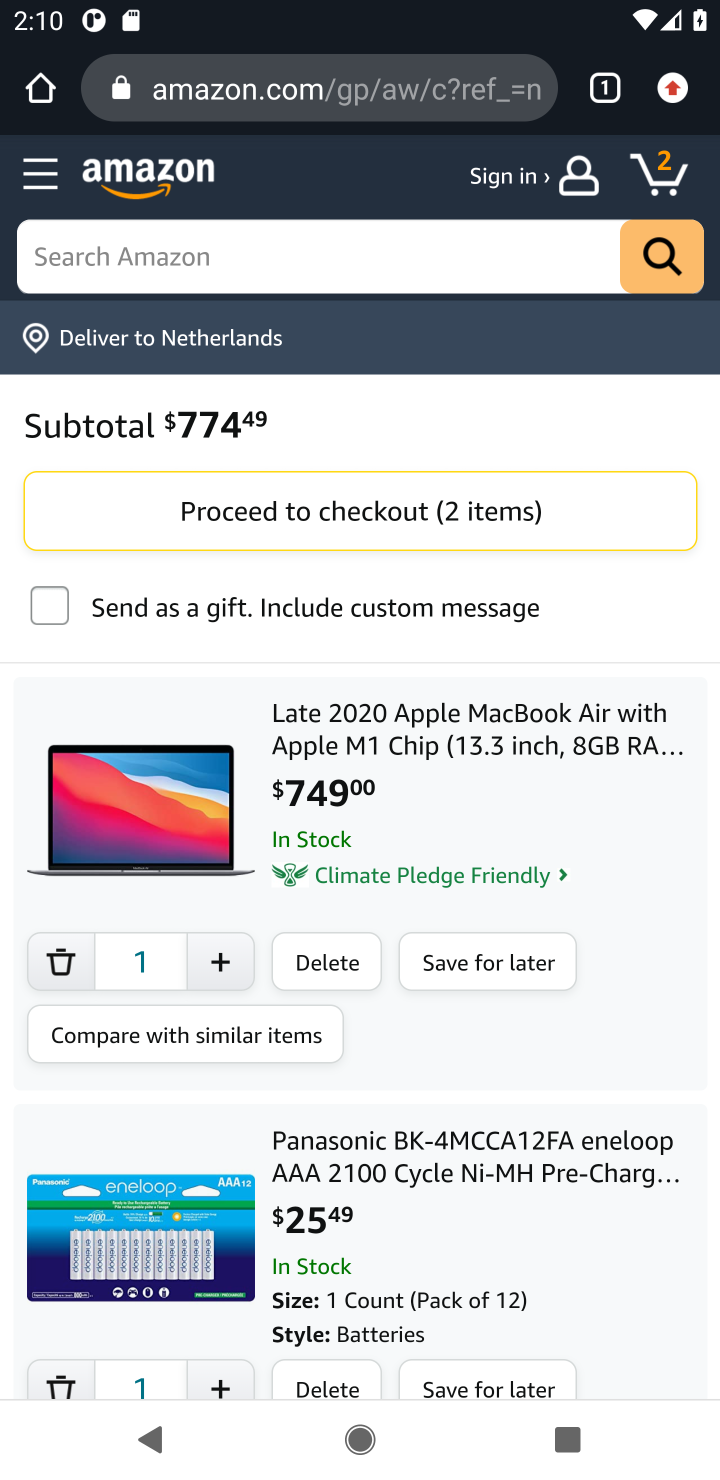
Step 29: task complete